Your task to perform on an android device: Play the last video I watched on Youtube Image 0: 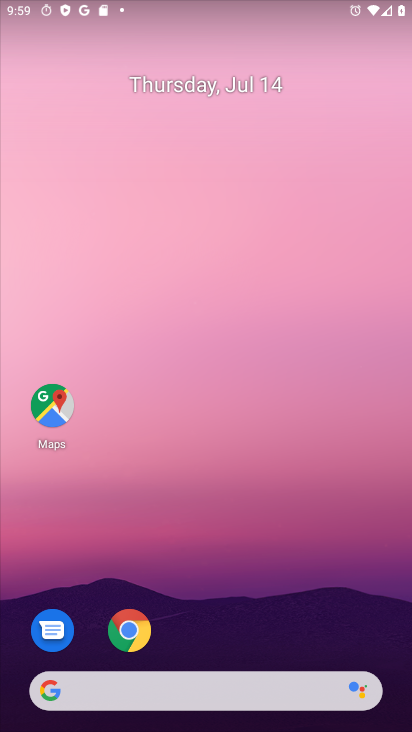
Step 0: drag from (18, 699) to (164, 0)
Your task to perform on an android device: Play the last video I watched on Youtube Image 1: 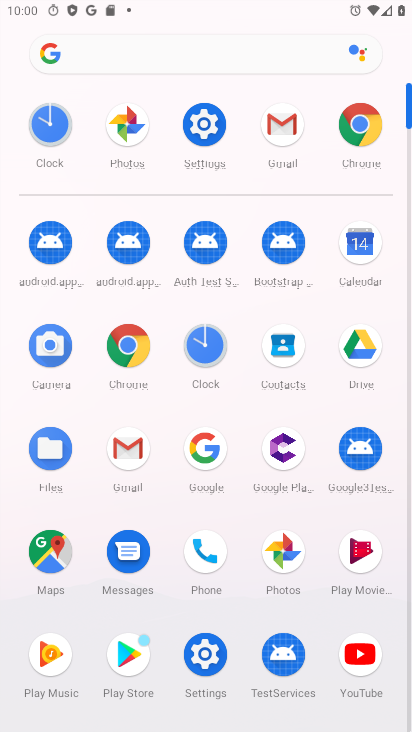
Step 1: click (347, 670)
Your task to perform on an android device: Play the last video I watched on Youtube Image 2: 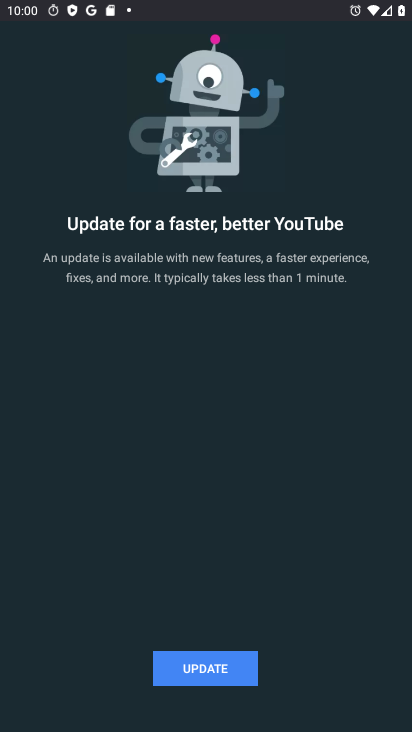
Step 2: task complete